Your task to perform on an android device: toggle priority inbox in the gmail app Image 0: 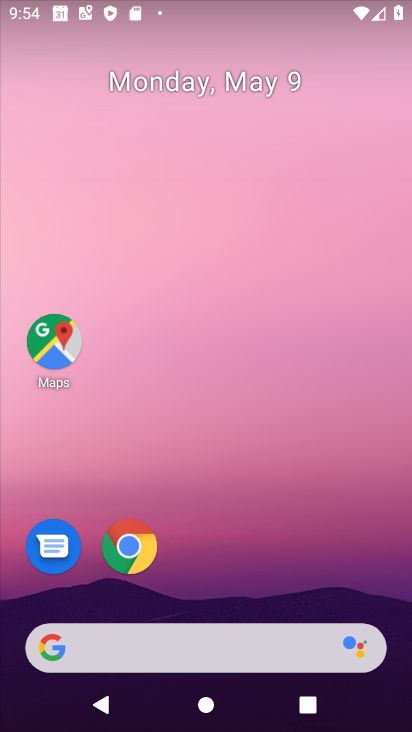
Step 0: drag from (252, 601) to (257, 3)
Your task to perform on an android device: toggle priority inbox in the gmail app Image 1: 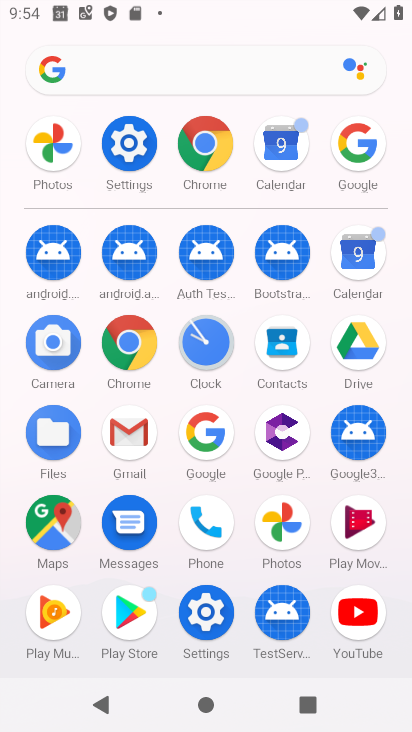
Step 1: click (121, 445)
Your task to perform on an android device: toggle priority inbox in the gmail app Image 2: 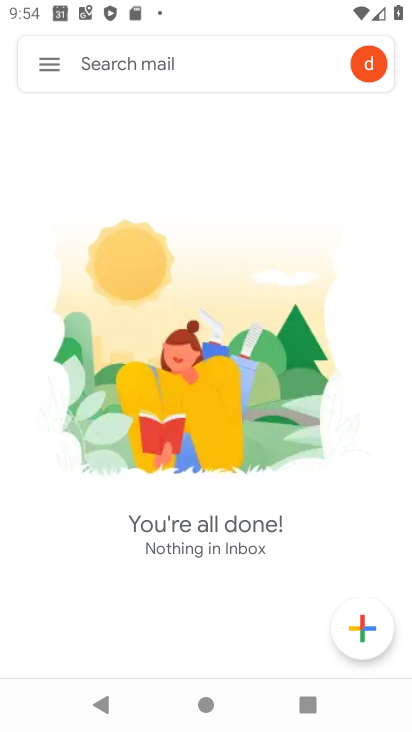
Step 2: click (52, 56)
Your task to perform on an android device: toggle priority inbox in the gmail app Image 3: 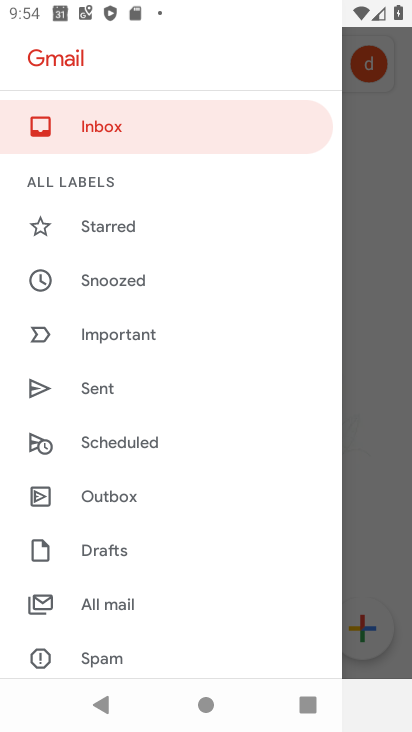
Step 3: drag from (183, 642) to (249, 166)
Your task to perform on an android device: toggle priority inbox in the gmail app Image 4: 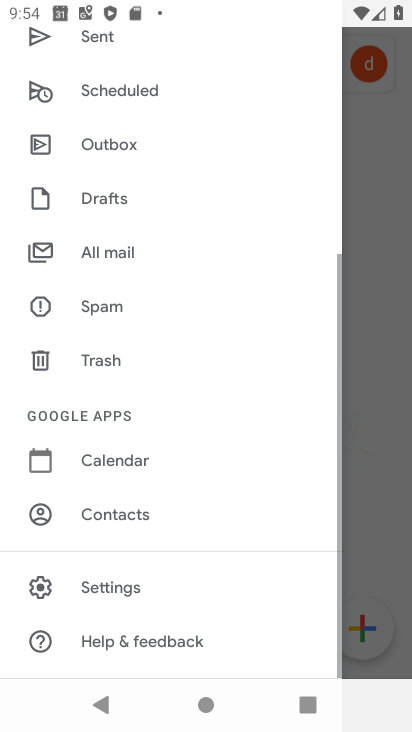
Step 4: click (129, 594)
Your task to perform on an android device: toggle priority inbox in the gmail app Image 5: 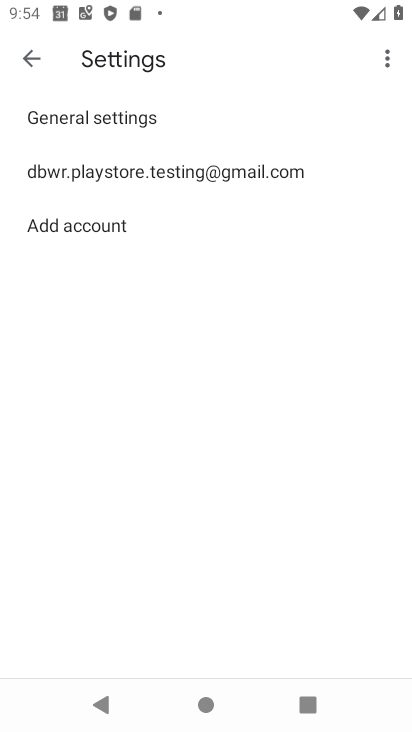
Step 5: click (210, 173)
Your task to perform on an android device: toggle priority inbox in the gmail app Image 6: 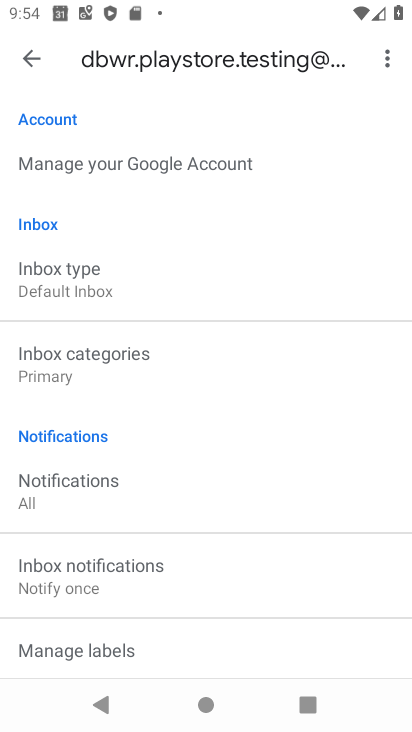
Step 6: click (43, 266)
Your task to perform on an android device: toggle priority inbox in the gmail app Image 7: 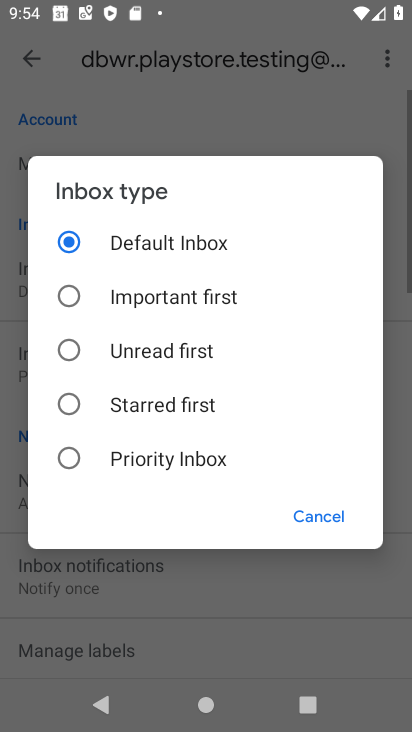
Step 7: click (184, 457)
Your task to perform on an android device: toggle priority inbox in the gmail app Image 8: 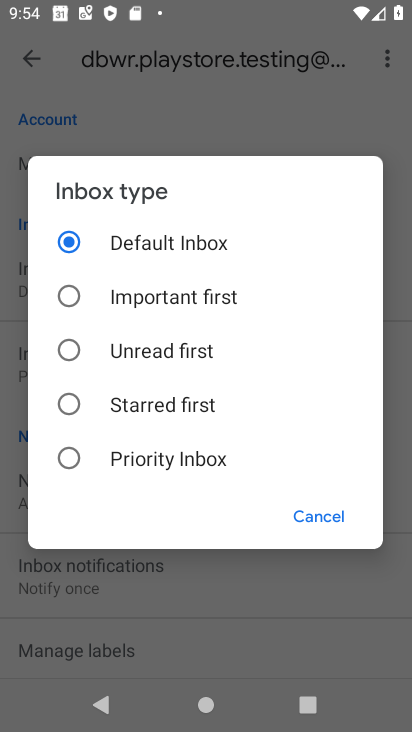
Step 8: click (65, 451)
Your task to perform on an android device: toggle priority inbox in the gmail app Image 9: 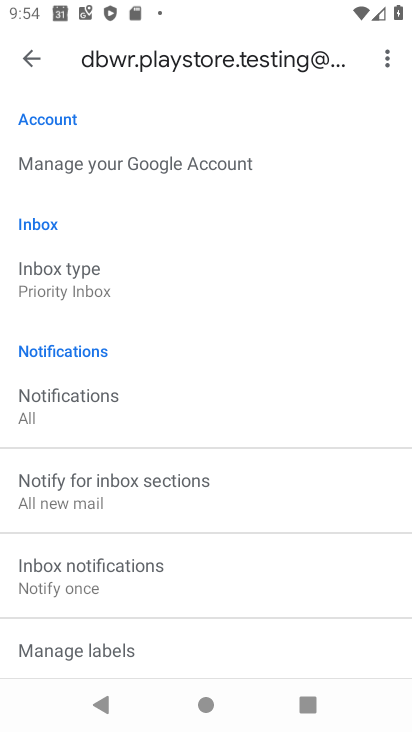
Step 9: task complete